Your task to perform on an android device: open app "WhatsApp Messenger" (install if not already installed) Image 0: 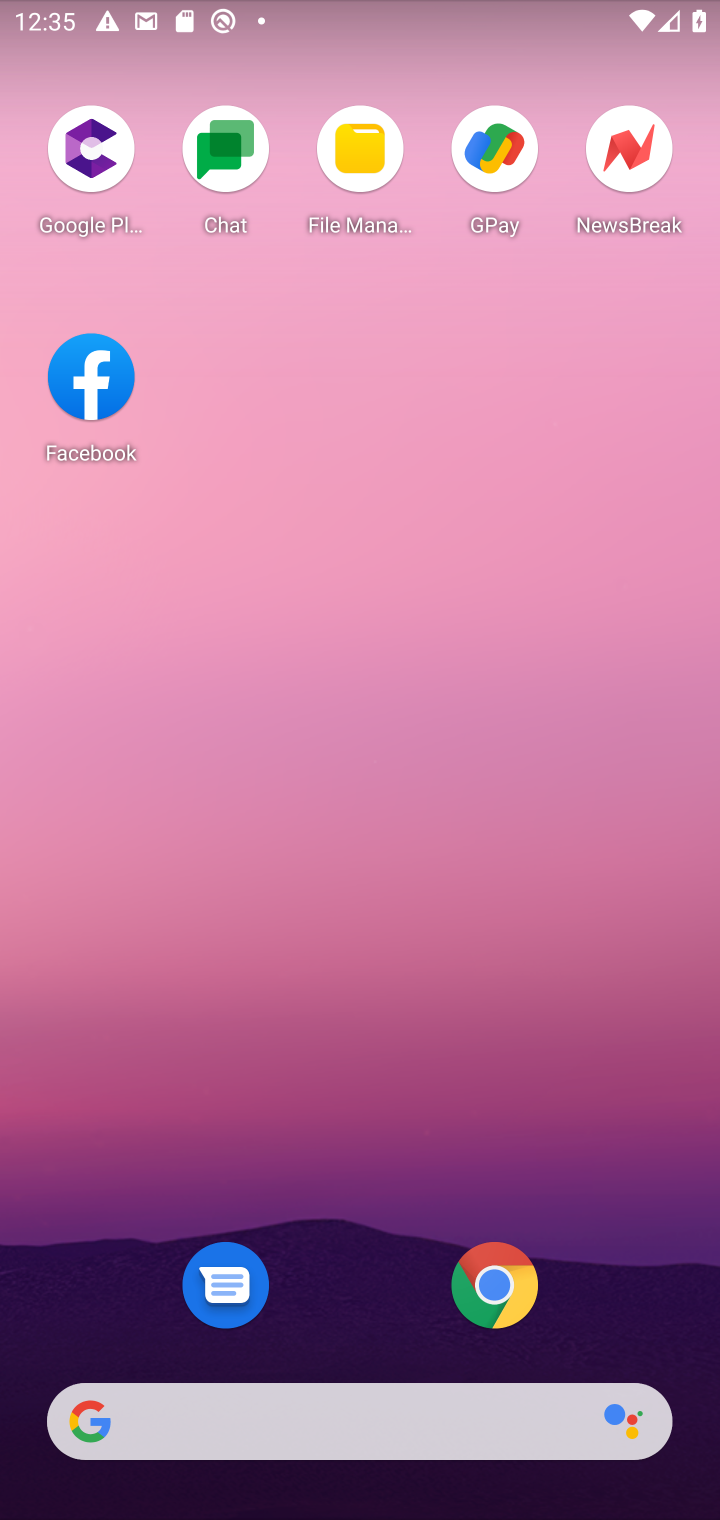
Step 0: drag from (319, 1266) to (370, 106)
Your task to perform on an android device: open app "WhatsApp Messenger" (install if not already installed) Image 1: 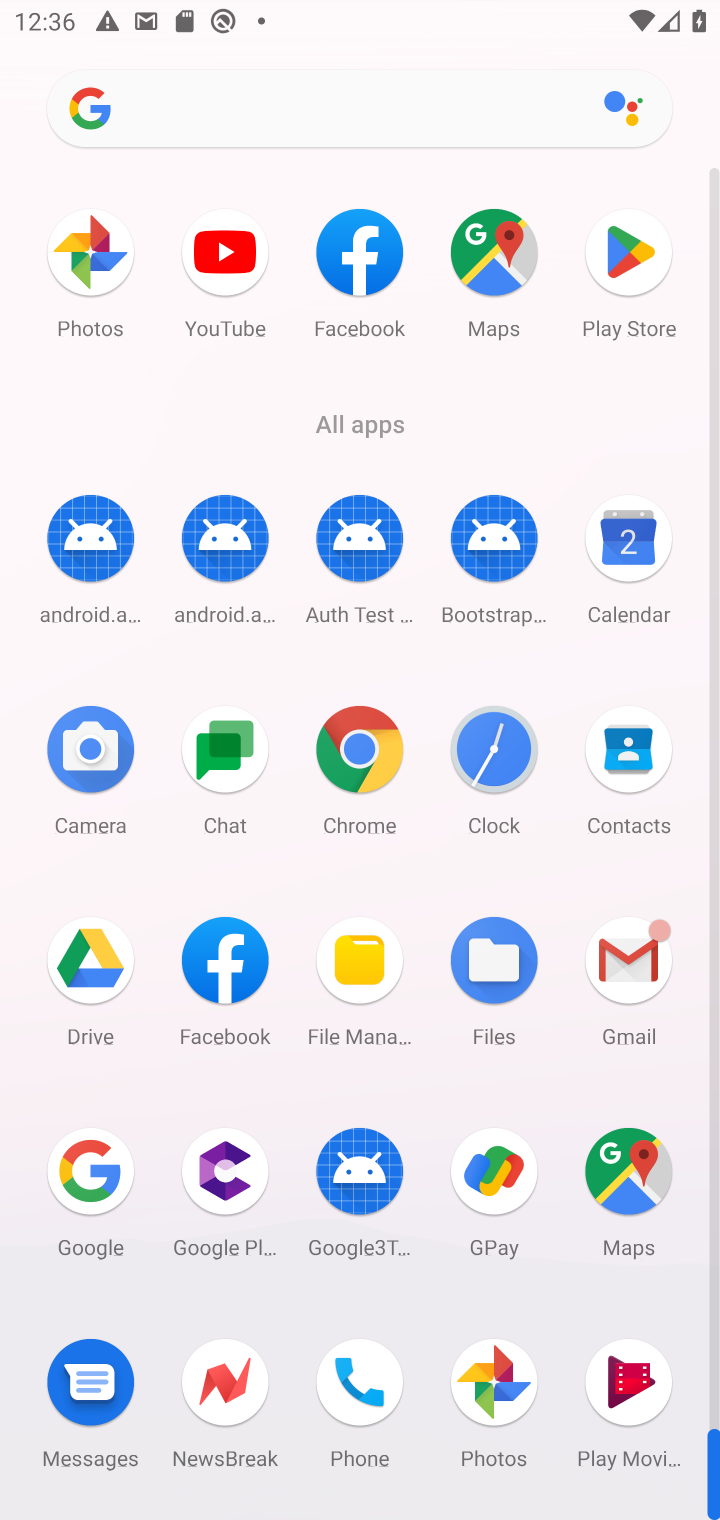
Step 1: drag from (301, 567) to (330, 203)
Your task to perform on an android device: open app "WhatsApp Messenger" (install if not already installed) Image 2: 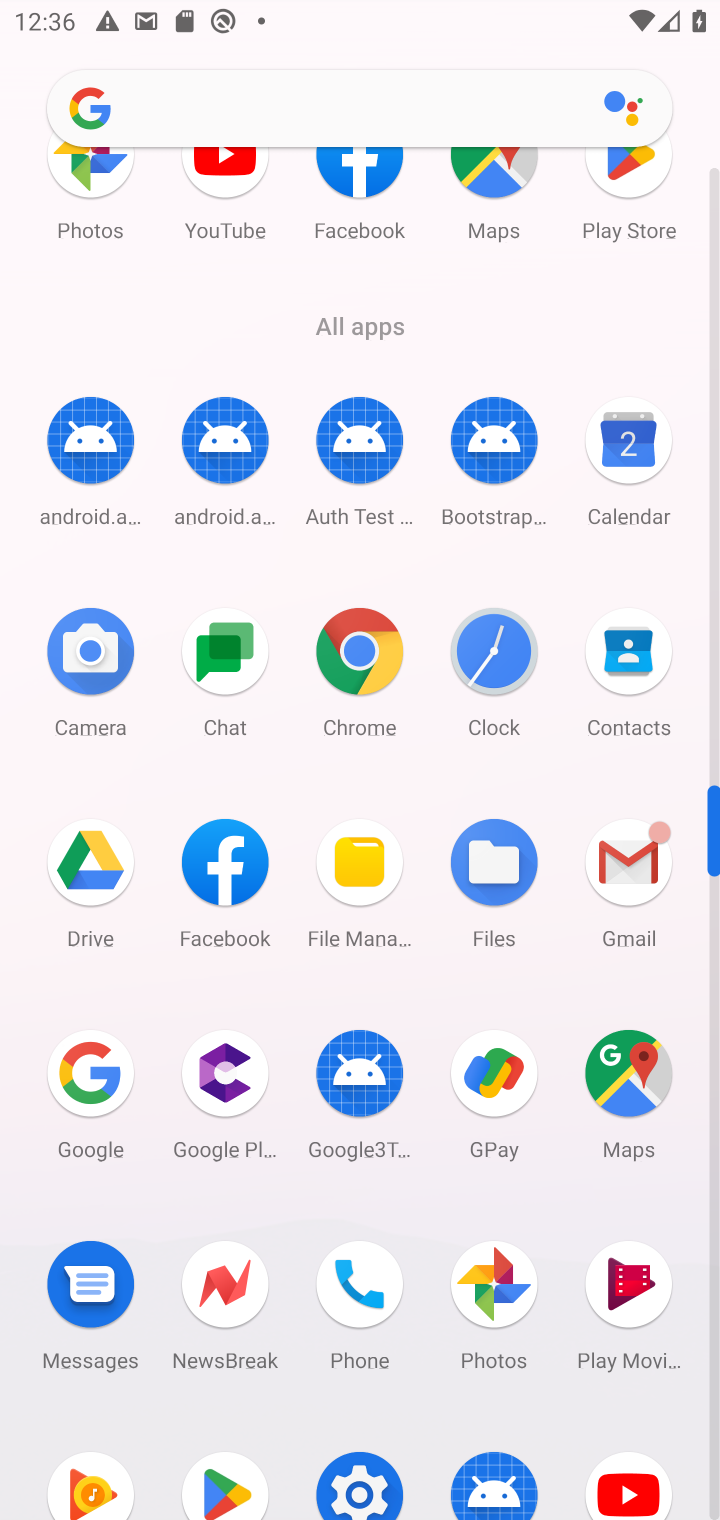
Step 2: drag from (360, 1159) to (409, 397)
Your task to perform on an android device: open app "WhatsApp Messenger" (install if not already installed) Image 3: 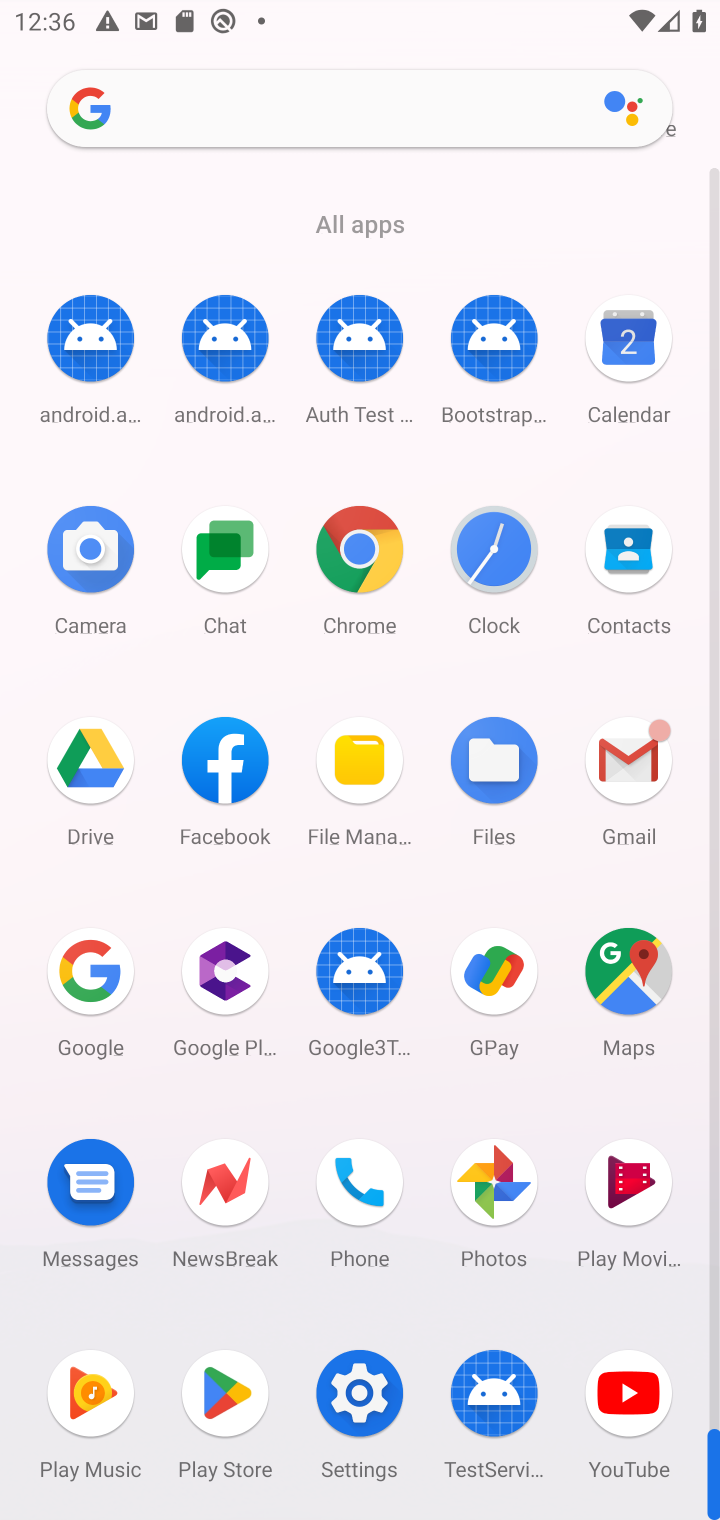
Step 3: click (228, 1351)
Your task to perform on an android device: open app "WhatsApp Messenger" (install if not already installed) Image 4: 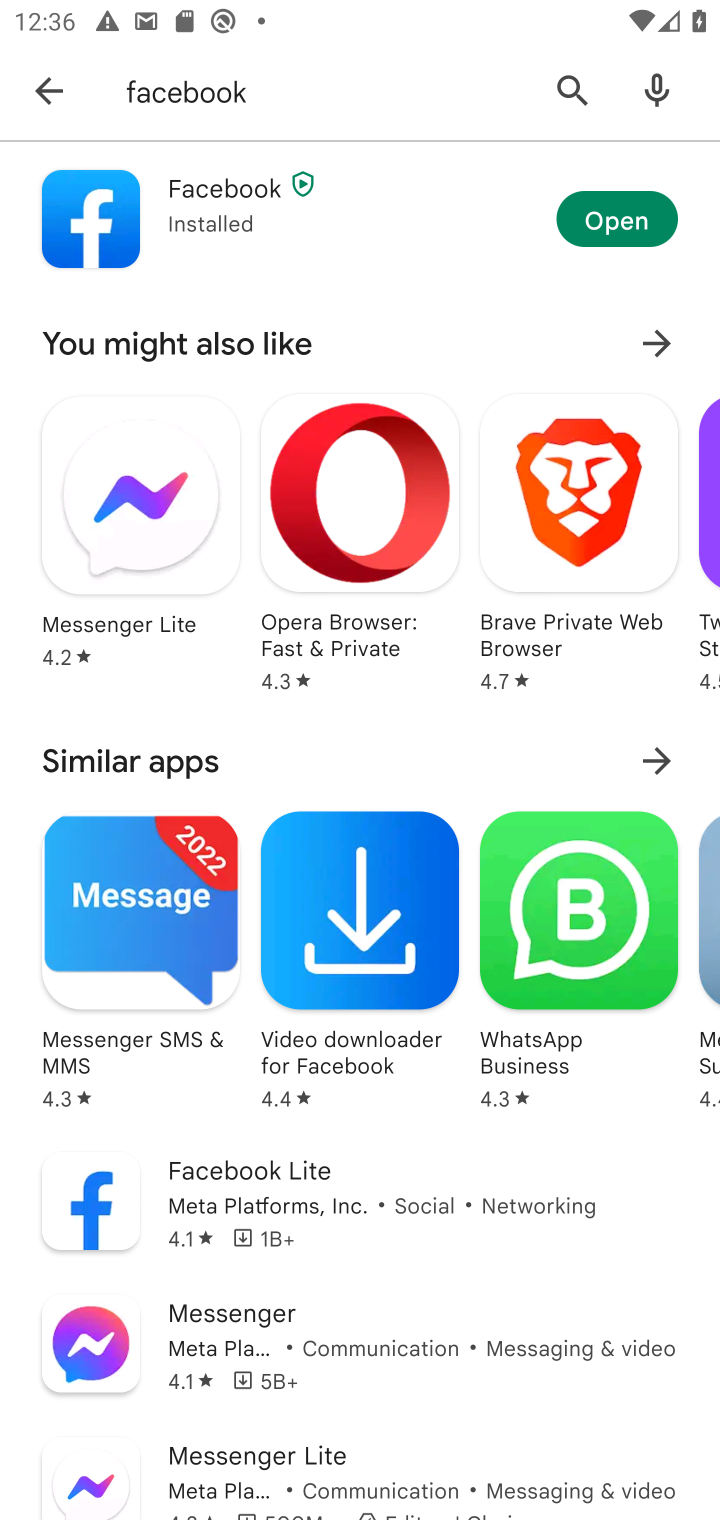
Step 4: click (58, 103)
Your task to perform on an android device: open app "WhatsApp Messenger" (install if not already installed) Image 5: 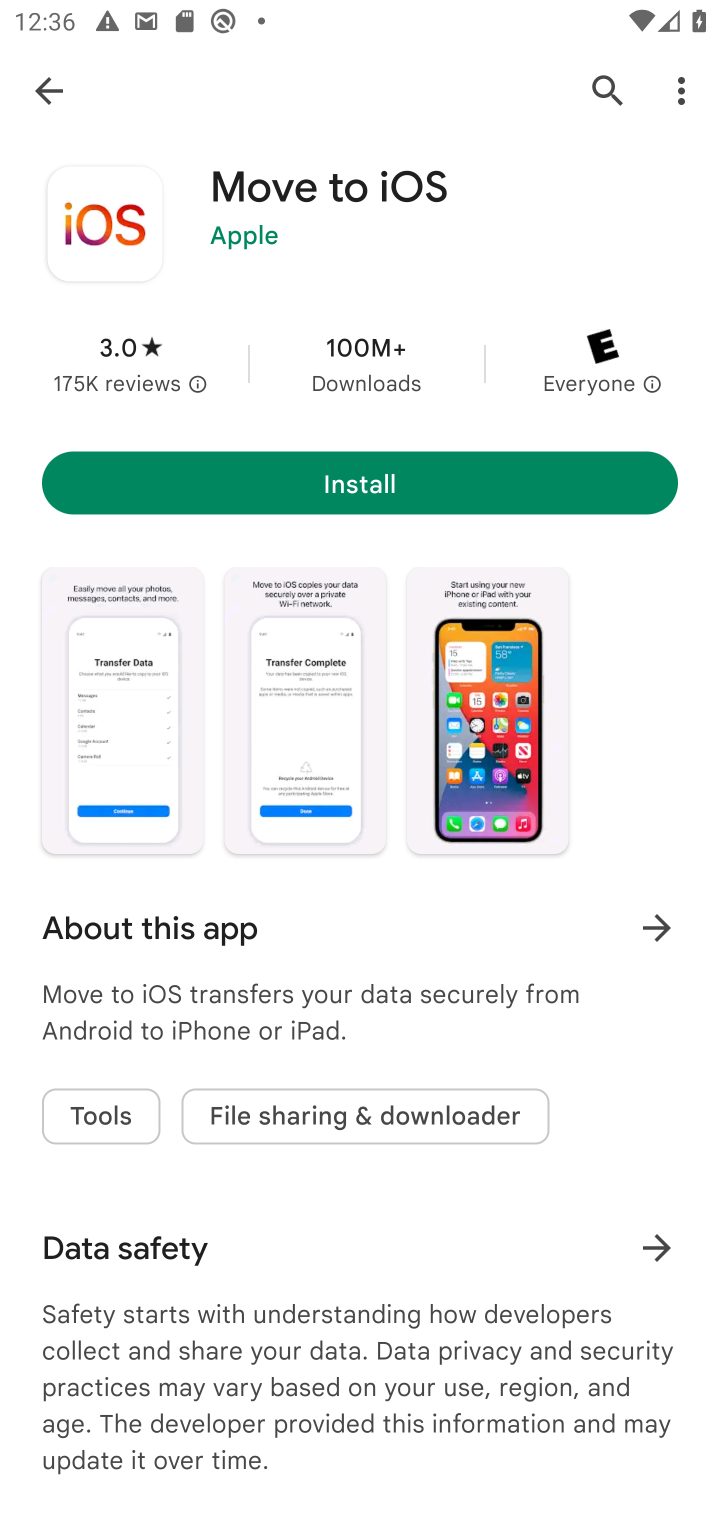
Step 5: click (600, 81)
Your task to perform on an android device: open app "WhatsApp Messenger" (install if not already installed) Image 6: 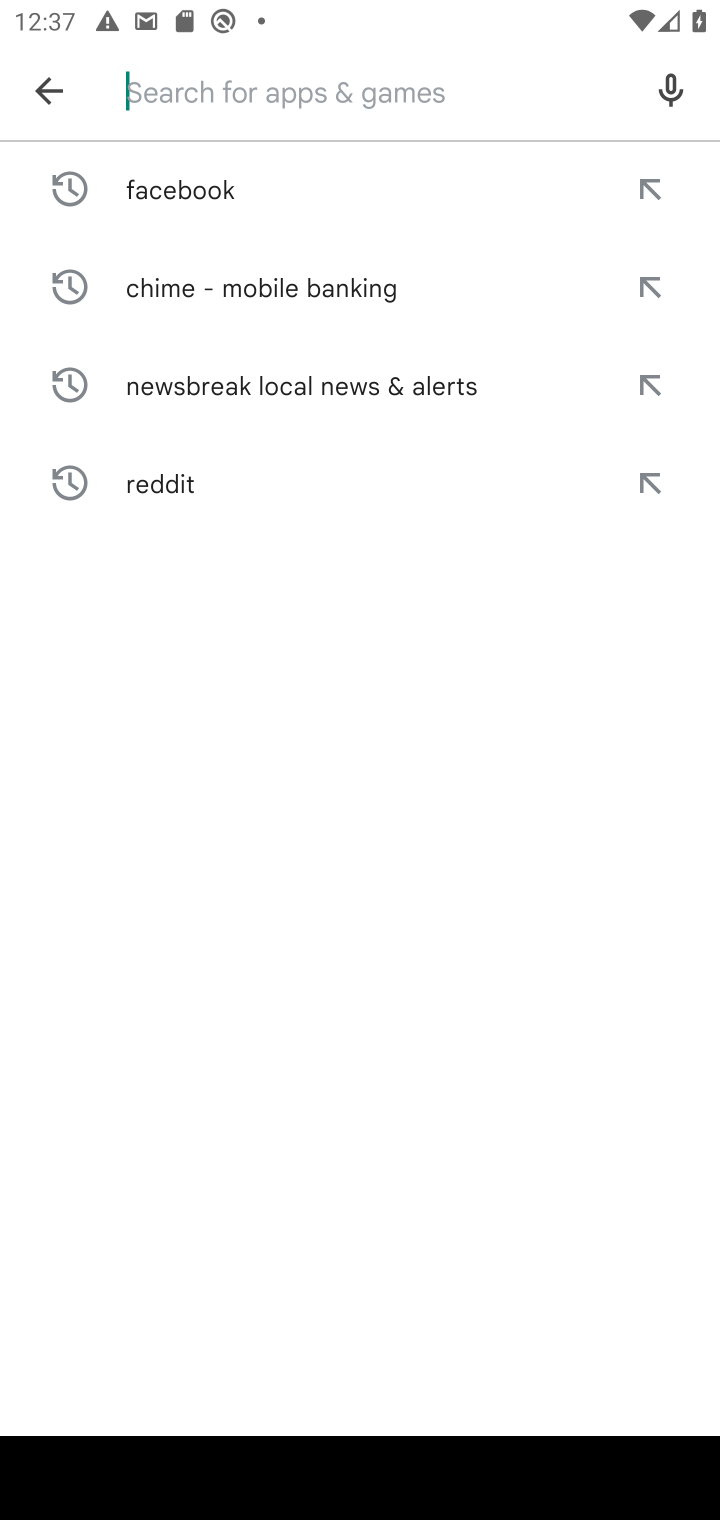
Step 6: type "whays app"
Your task to perform on an android device: open app "WhatsApp Messenger" (install if not already installed) Image 7: 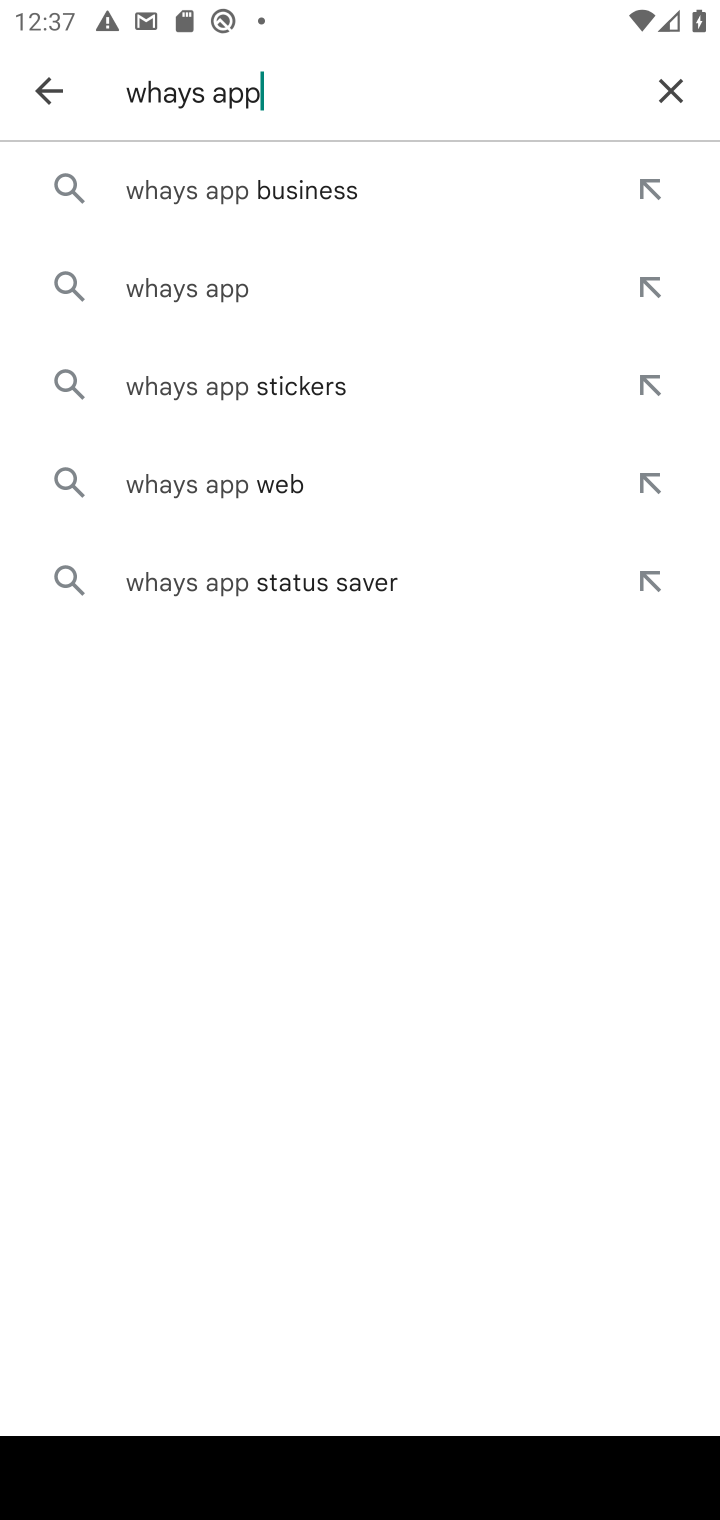
Step 7: click (189, 290)
Your task to perform on an android device: open app "WhatsApp Messenger" (install if not already installed) Image 8: 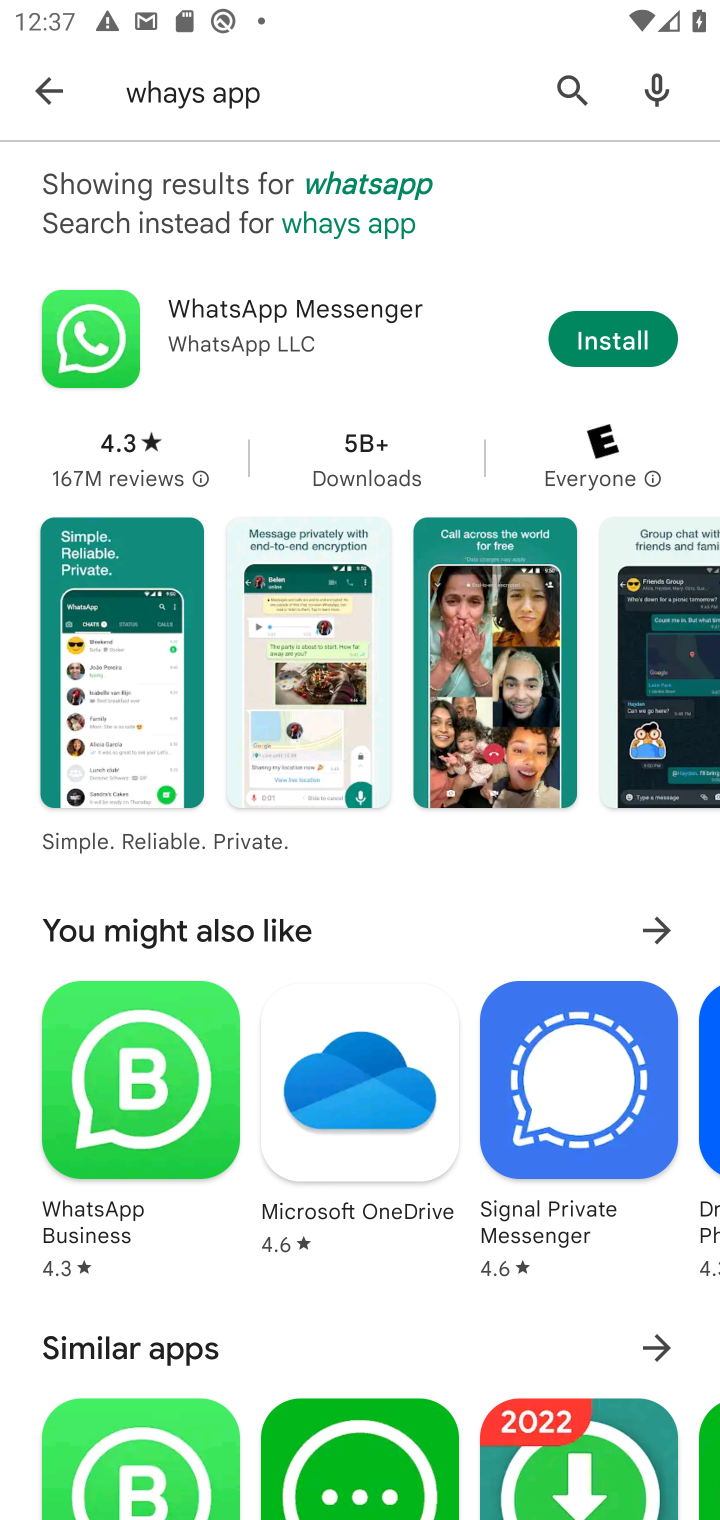
Step 8: click (567, 86)
Your task to perform on an android device: open app "WhatsApp Messenger" (install if not already installed) Image 9: 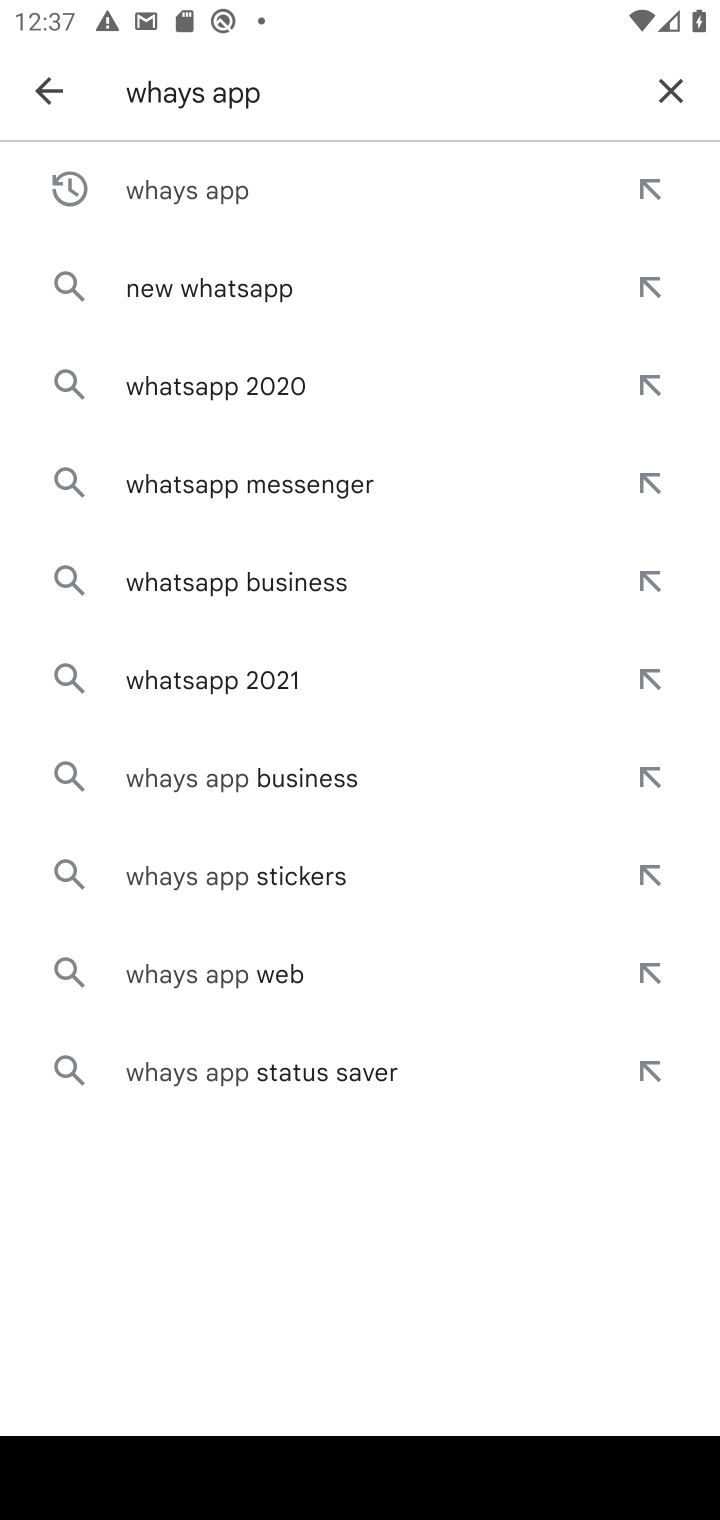
Step 9: click (223, 490)
Your task to perform on an android device: open app "WhatsApp Messenger" (install if not already installed) Image 10: 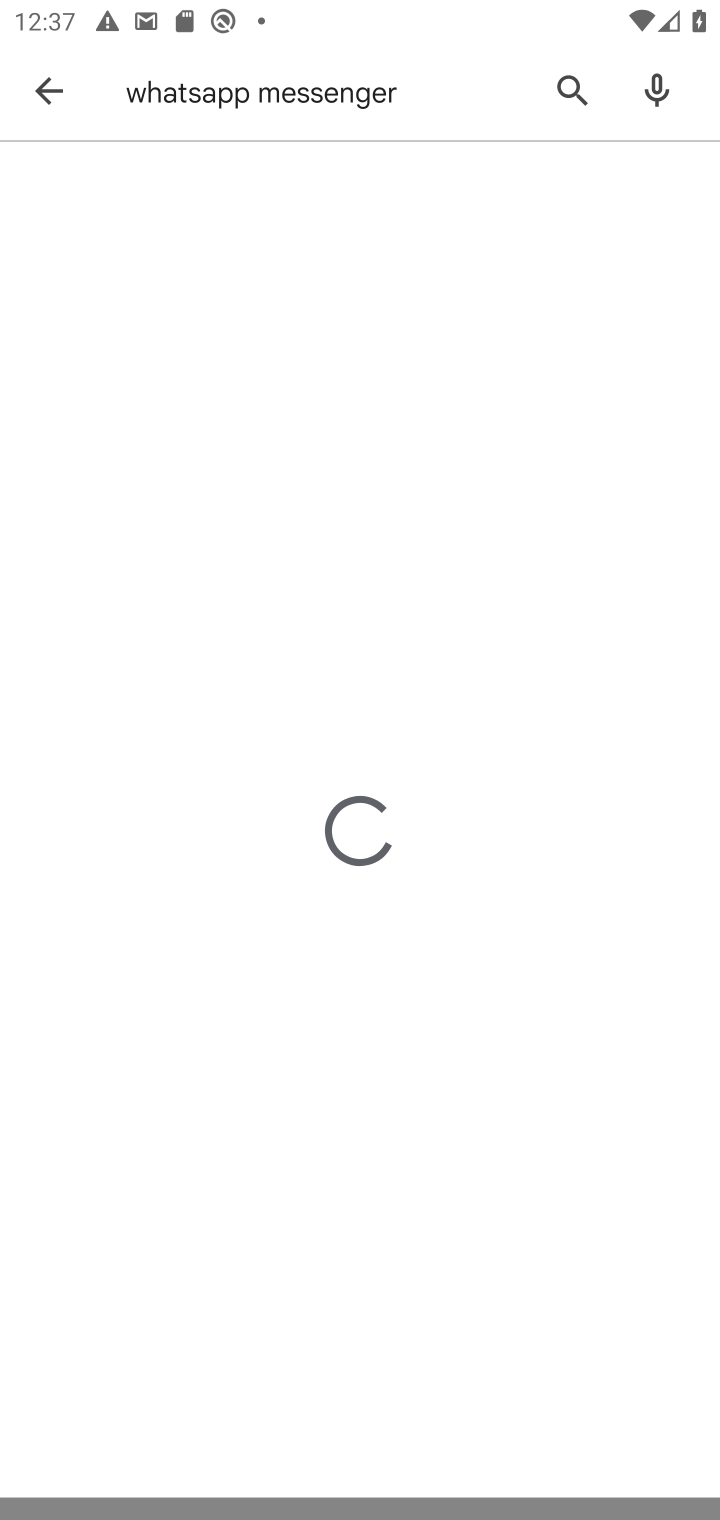
Step 10: click (223, 490)
Your task to perform on an android device: open app "WhatsApp Messenger" (install if not already installed) Image 11: 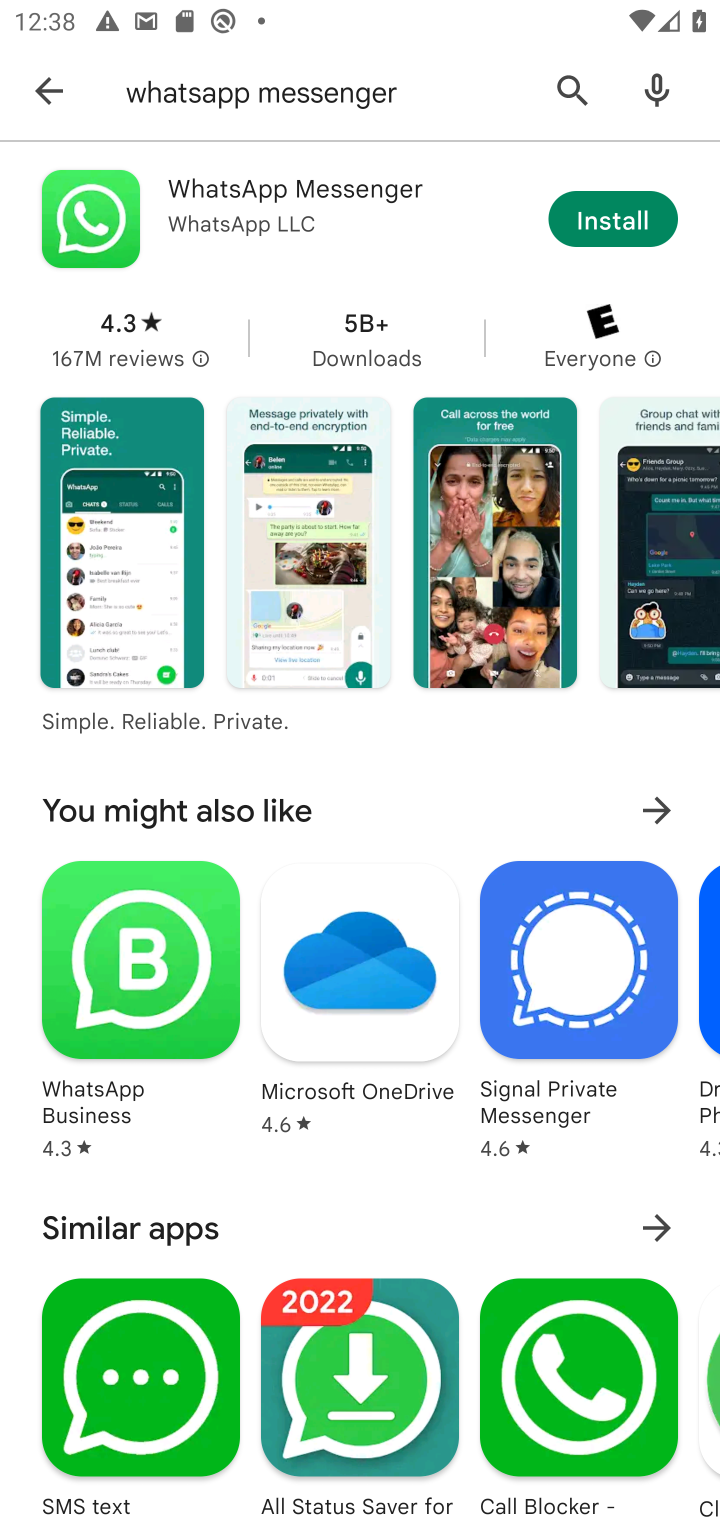
Step 11: click (642, 224)
Your task to perform on an android device: open app "WhatsApp Messenger" (install if not already installed) Image 12: 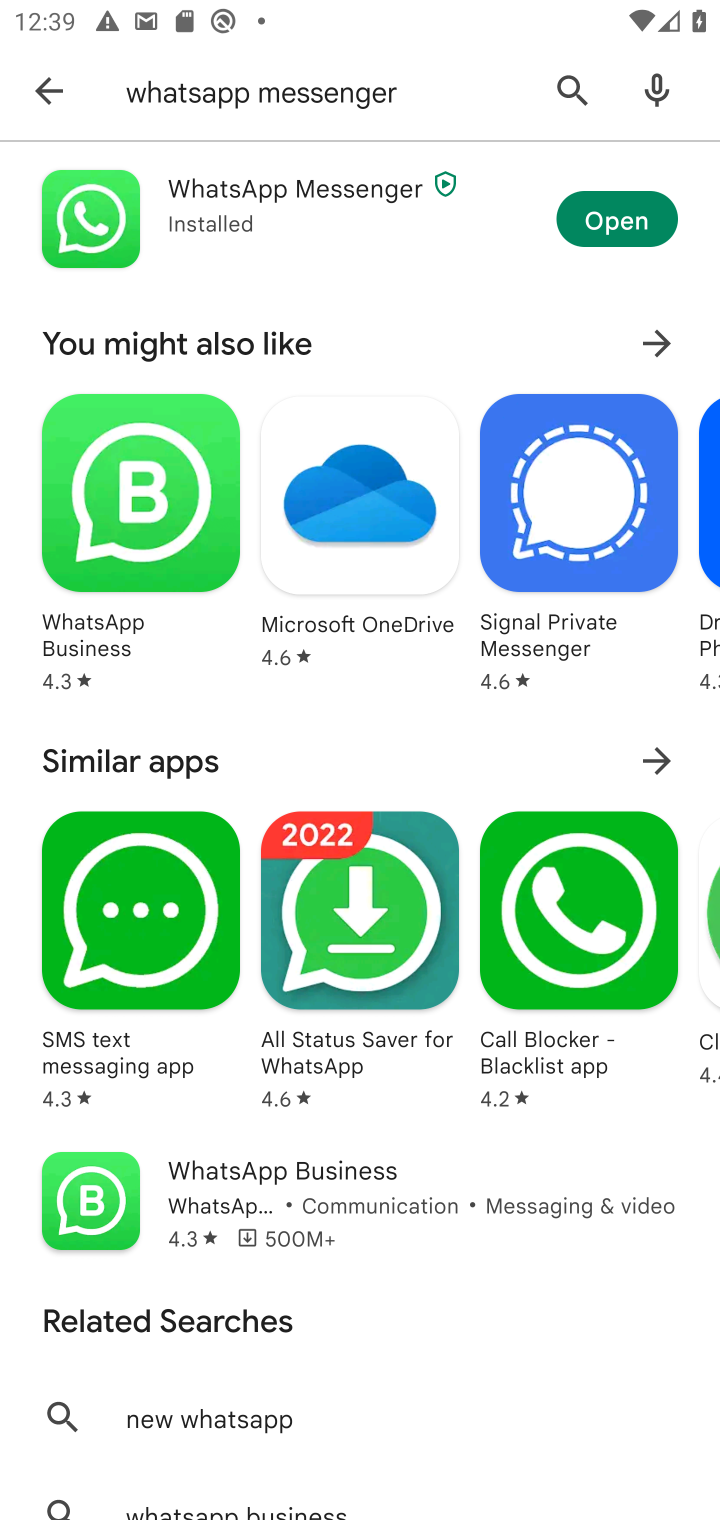
Step 12: click (622, 213)
Your task to perform on an android device: open app "WhatsApp Messenger" (install if not already installed) Image 13: 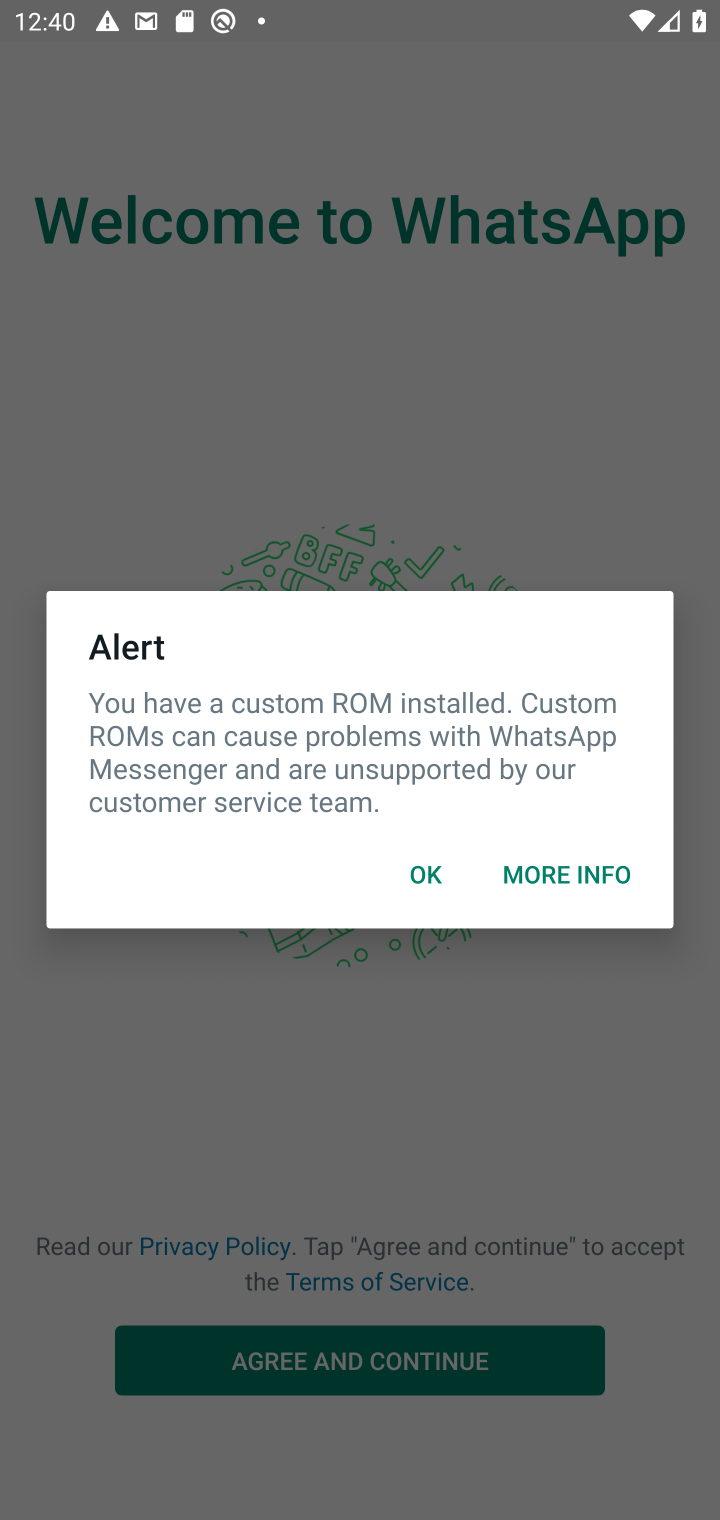
Step 13: task complete